Your task to perform on an android device: Show me recent news Image 0: 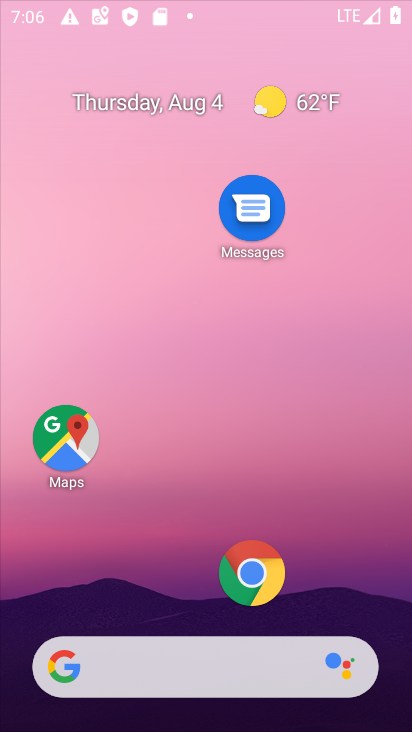
Step 0: press home button
Your task to perform on an android device: Show me recent news Image 1: 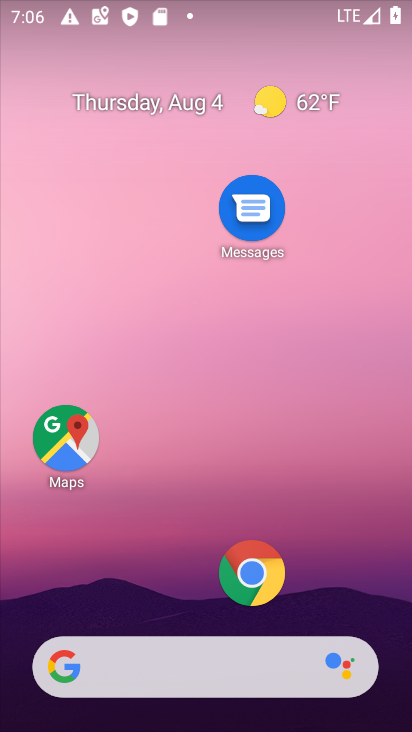
Step 1: click (69, 665)
Your task to perform on an android device: Show me recent news Image 2: 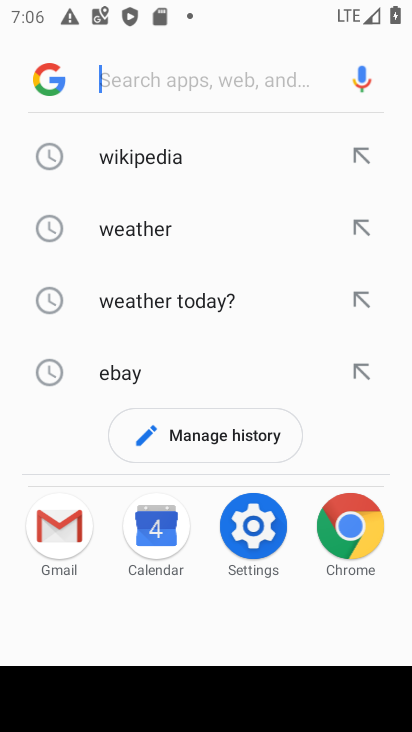
Step 2: type "recent news"
Your task to perform on an android device: Show me recent news Image 3: 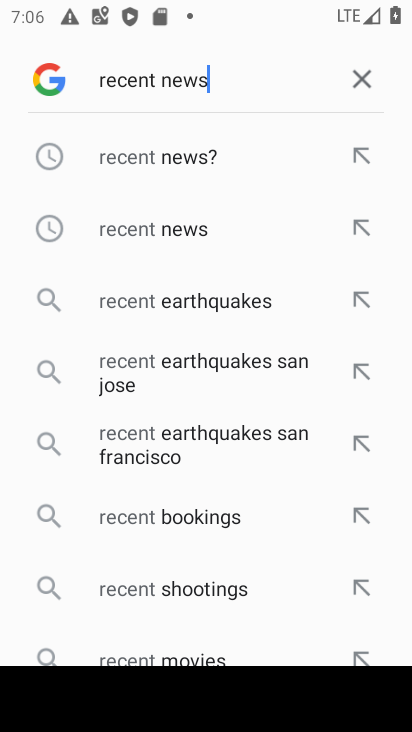
Step 3: press enter
Your task to perform on an android device: Show me recent news Image 4: 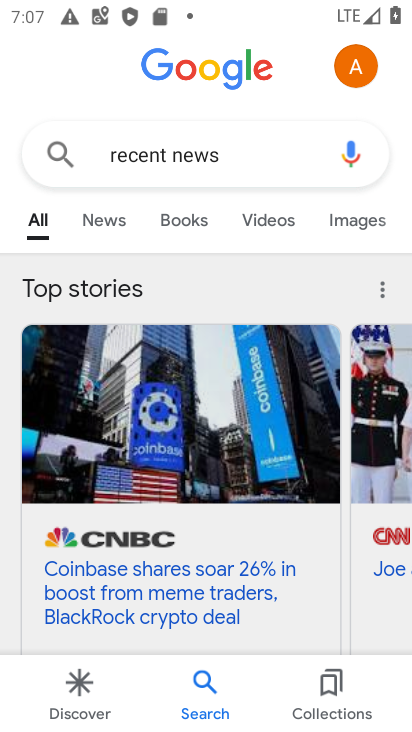
Step 4: task complete